Your task to perform on an android device: turn off javascript in the chrome app Image 0: 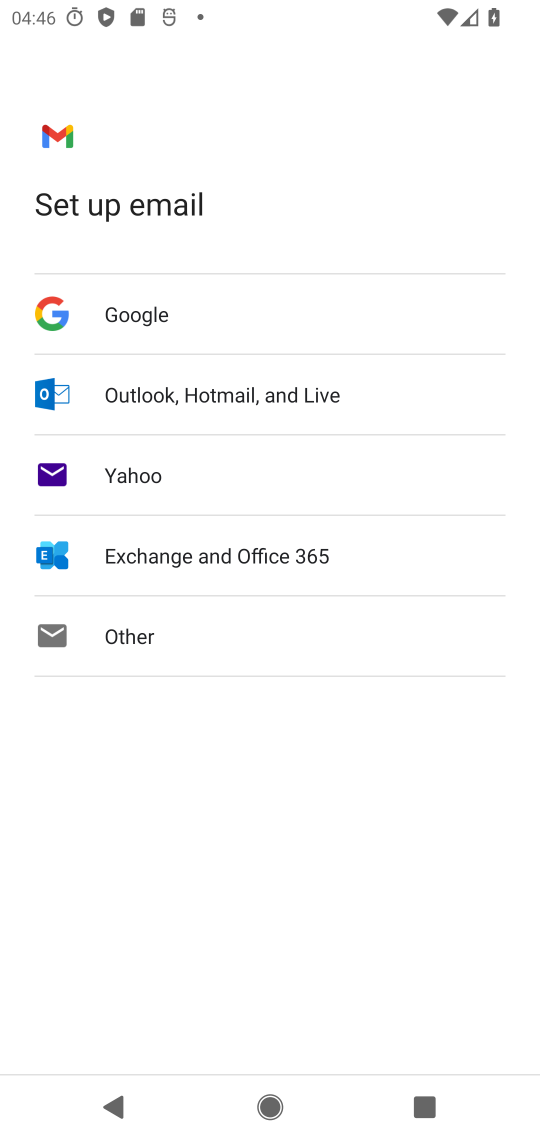
Step 0: press home button
Your task to perform on an android device: turn off javascript in the chrome app Image 1: 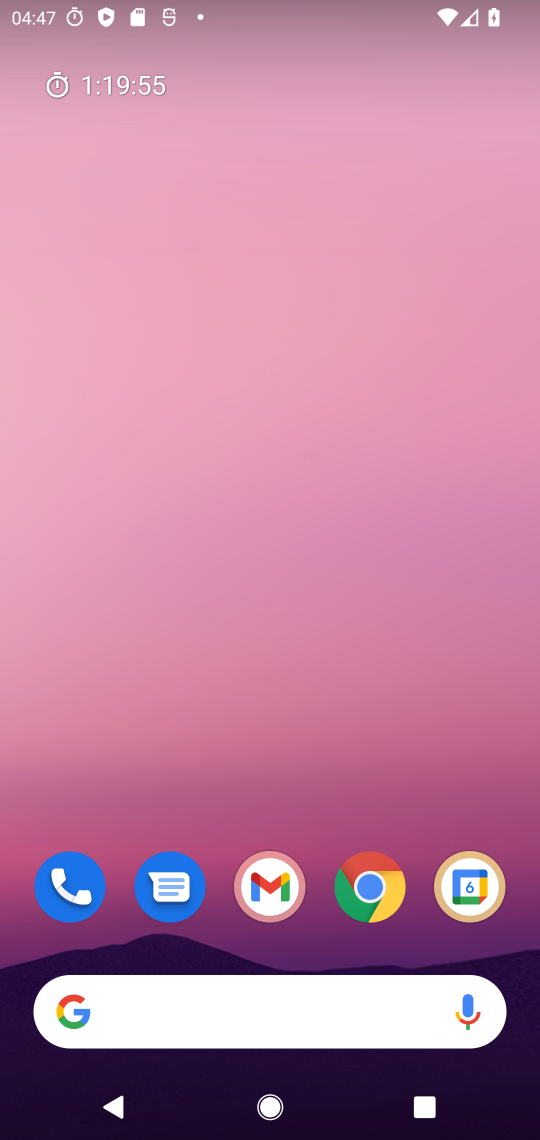
Step 1: drag from (320, 794) to (390, 184)
Your task to perform on an android device: turn off javascript in the chrome app Image 2: 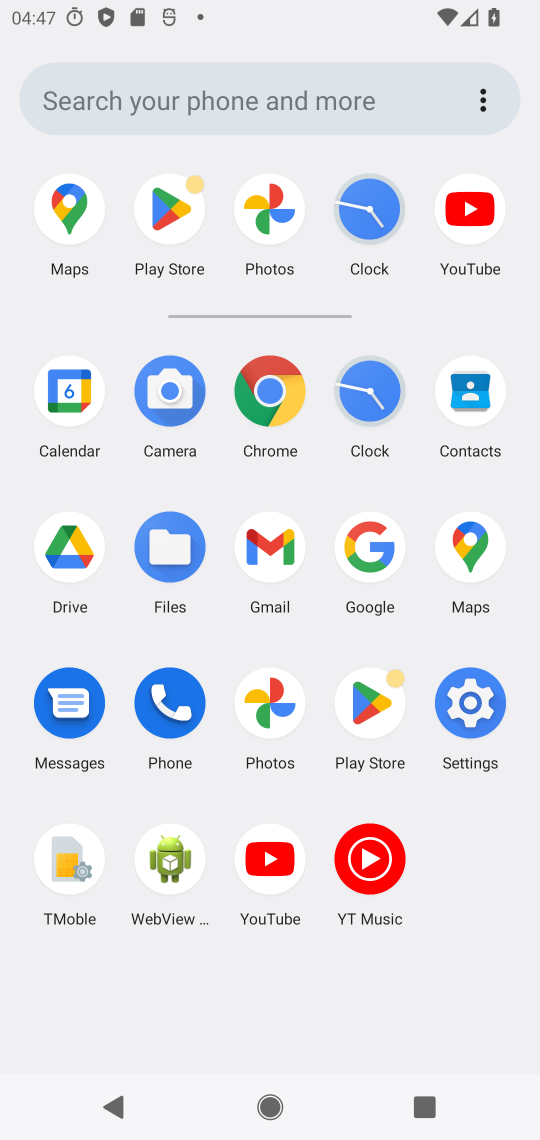
Step 2: click (270, 399)
Your task to perform on an android device: turn off javascript in the chrome app Image 3: 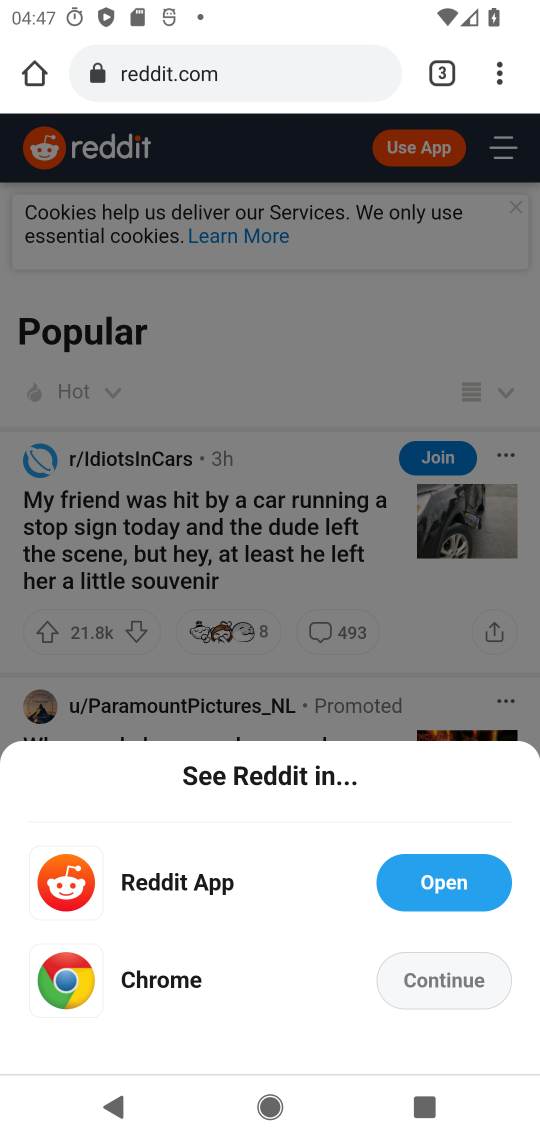
Step 3: click (494, 67)
Your task to perform on an android device: turn off javascript in the chrome app Image 4: 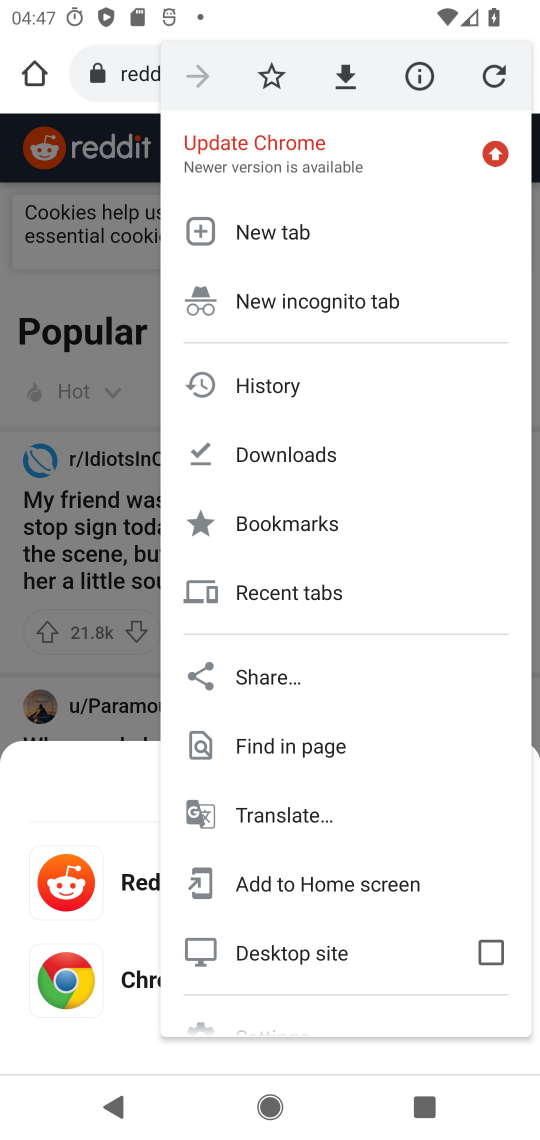
Step 4: drag from (485, 534) to (470, 396)
Your task to perform on an android device: turn off javascript in the chrome app Image 5: 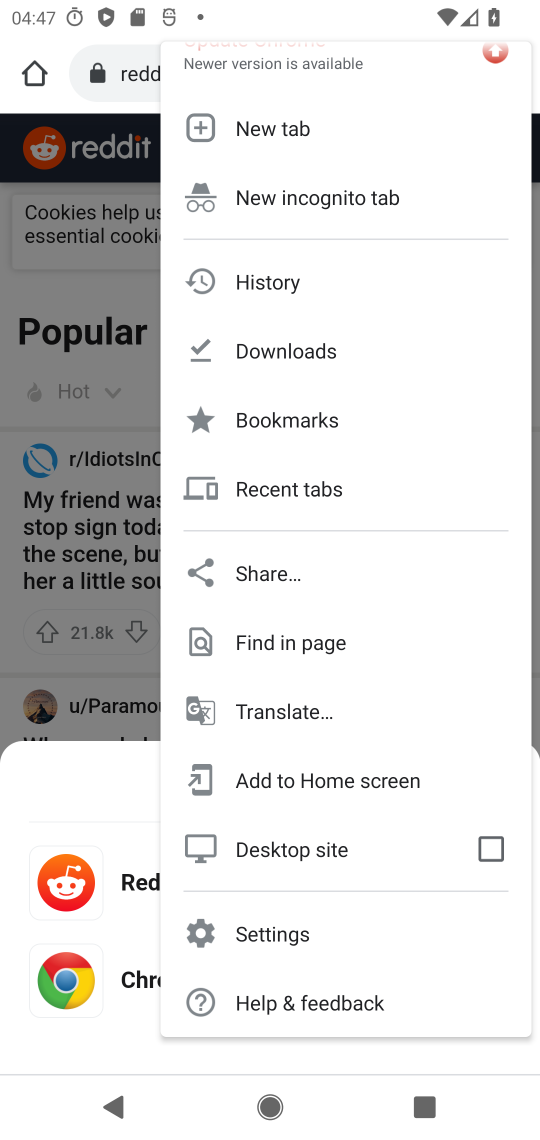
Step 5: drag from (446, 686) to (461, 468)
Your task to perform on an android device: turn off javascript in the chrome app Image 6: 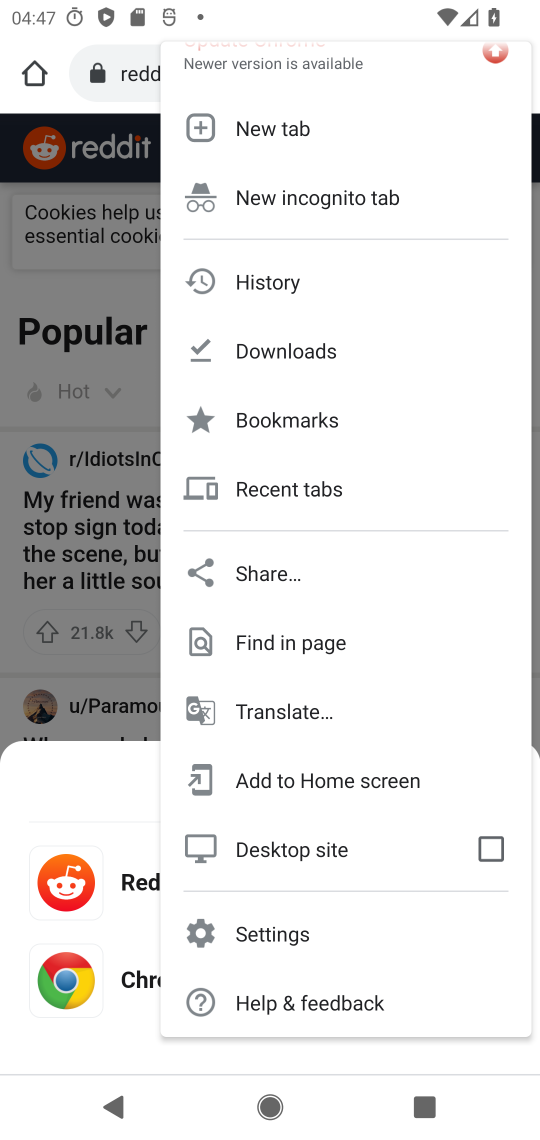
Step 6: click (366, 925)
Your task to perform on an android device: turn off javascript in the chrome app Image 7: 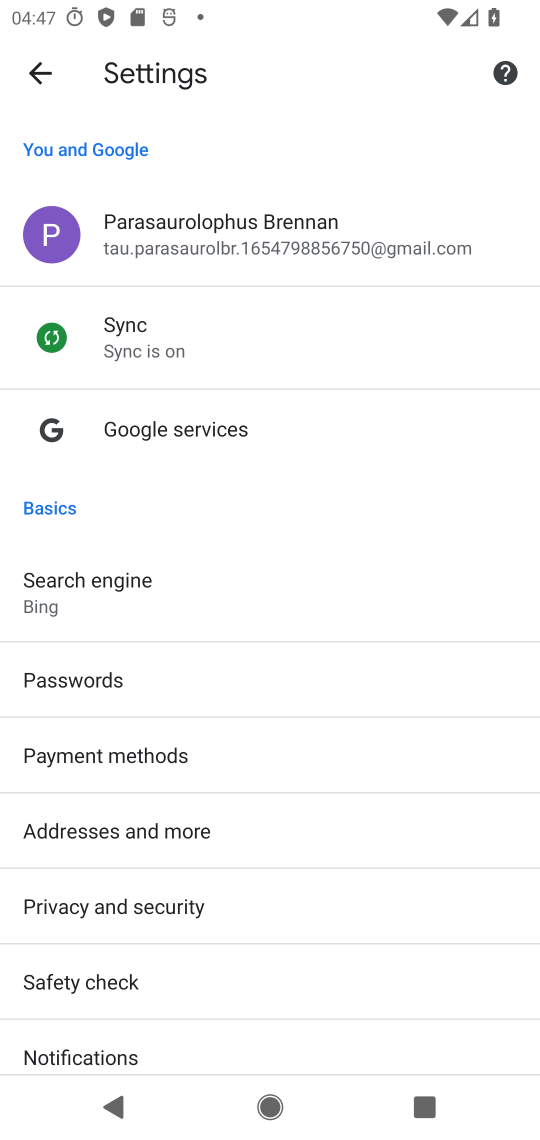
Step 7: drag from (366, 925) to (372, 708)
Your task to perform on an android device: turn off javascript in the chrome app Image 8: 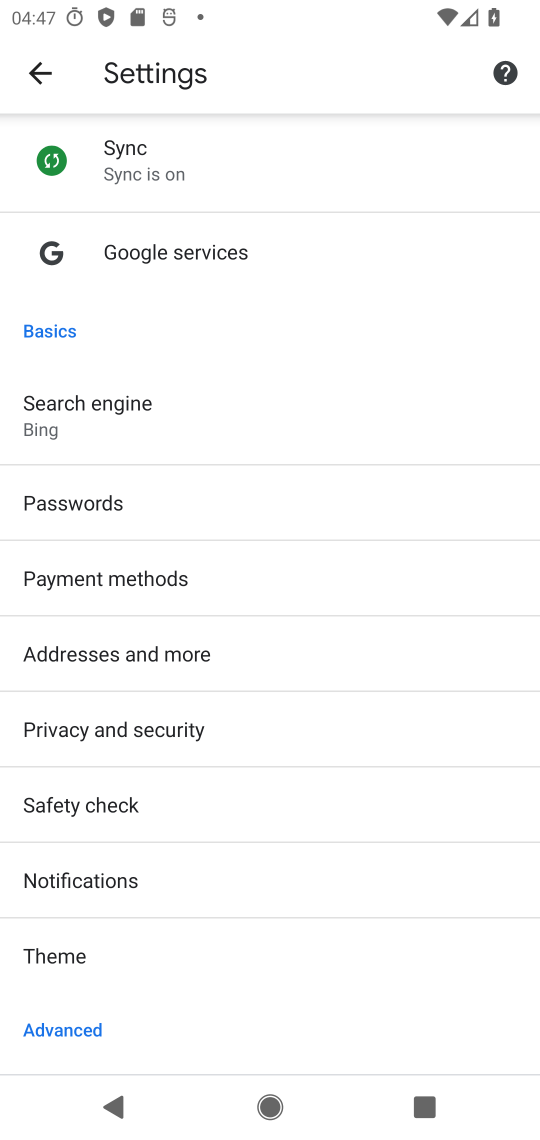
Step 8: drag from (376, 816) to (385, 398)
Your task to perform on an android device: turn off javascript in the chrome app Image 9: 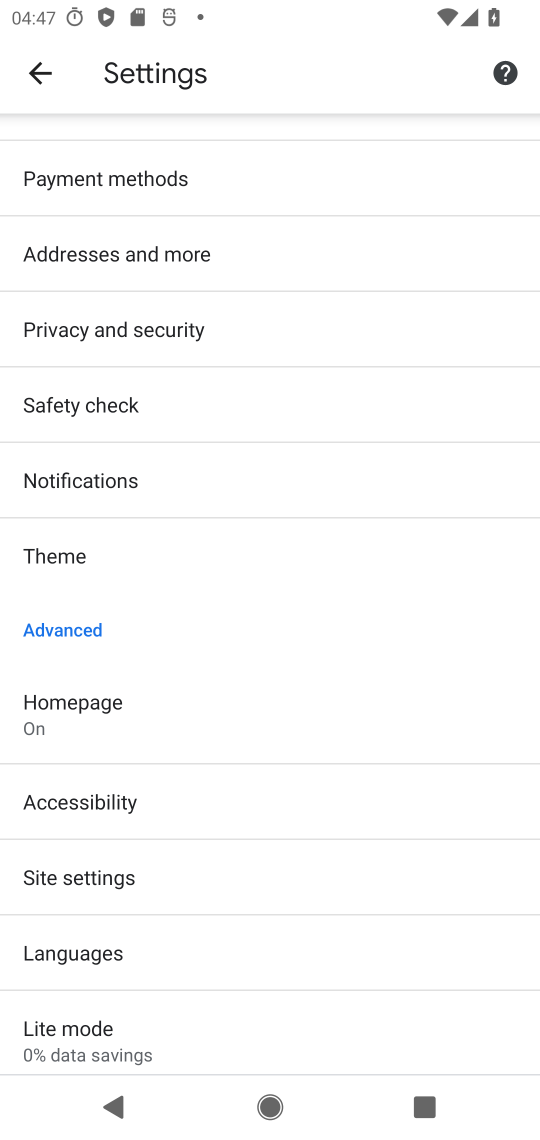
Step 9: drag from (351, 690) to (364, 350)
Your task to perform on an android device: turn off javascript in the chrome app Image 10: 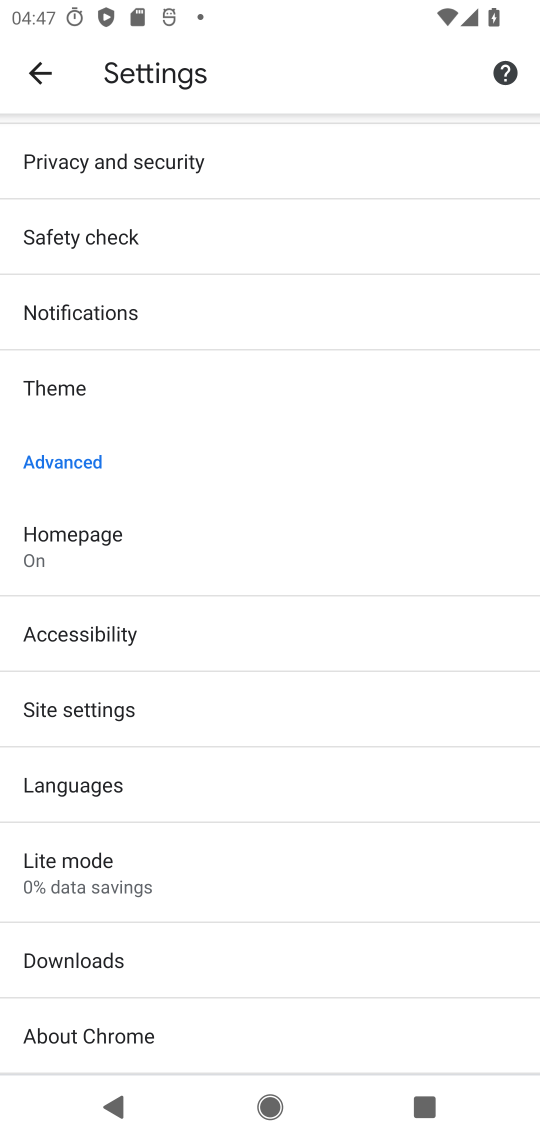
Step 10: click (290, 710)
Your task to perform on an android device: turn off javascript in the chrome app Image 11: 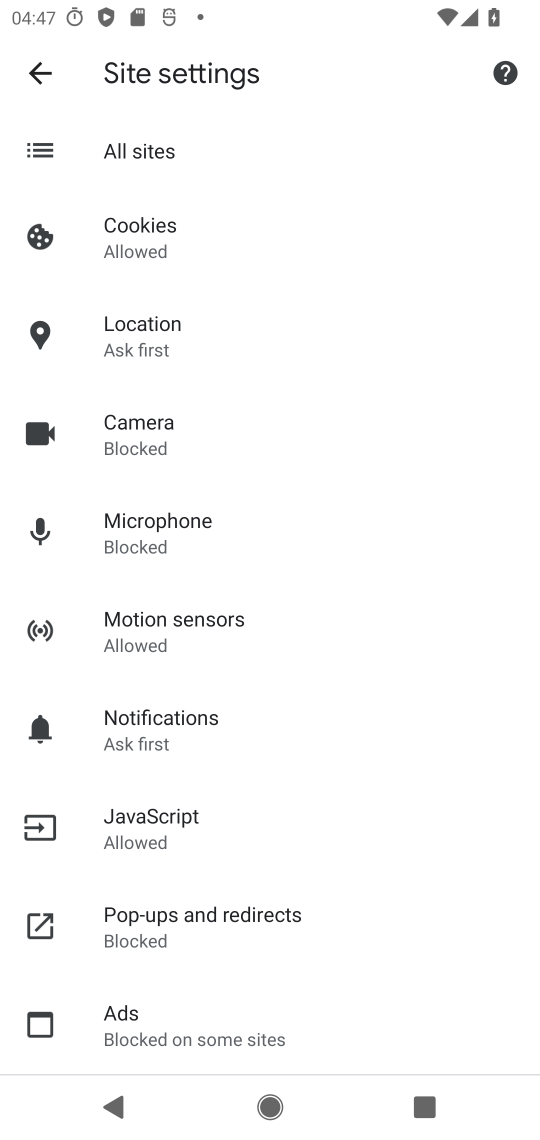
Step 11: click (234, 851)
Your task to perform on an android device: turn off javascript in the chrome app Image 12: 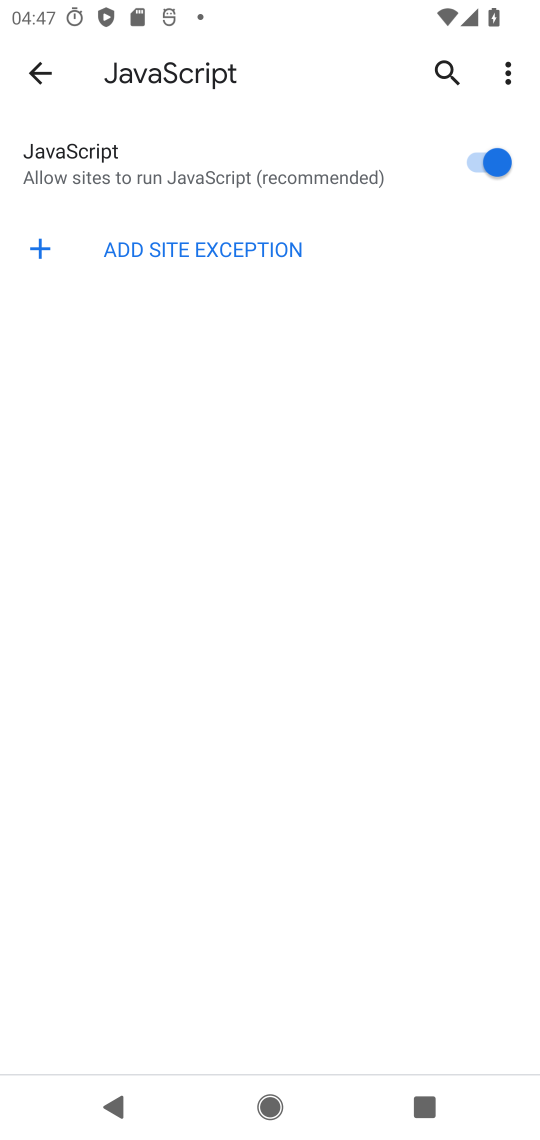
Step 12: click (494, 165)
Your task to perform on an android device: turn off javascript in the chrome app Image 13: 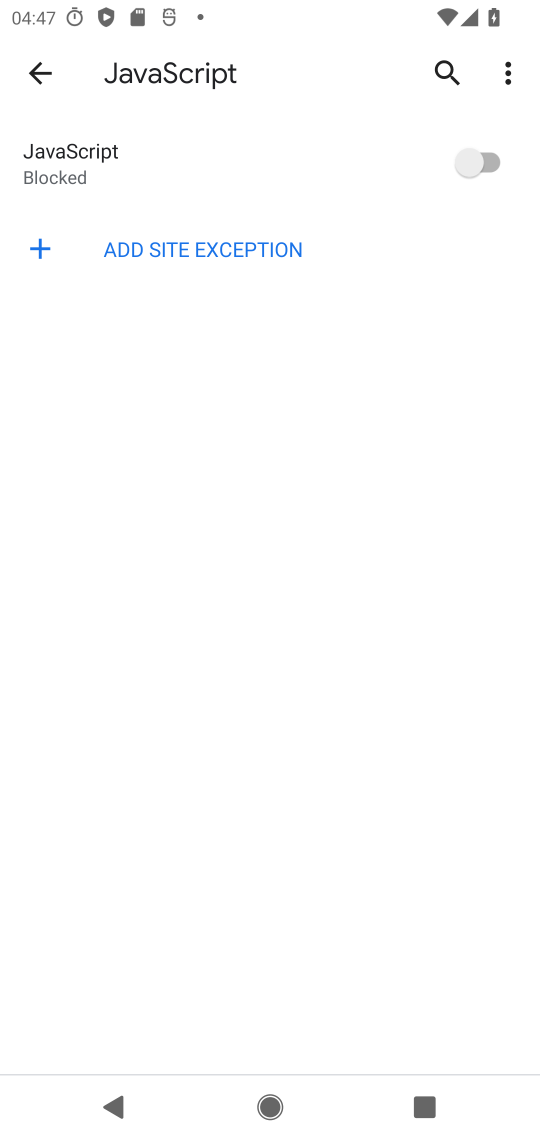
Step 13: task complete